Your task to perform on an android device: What is the recent news? Image 0: 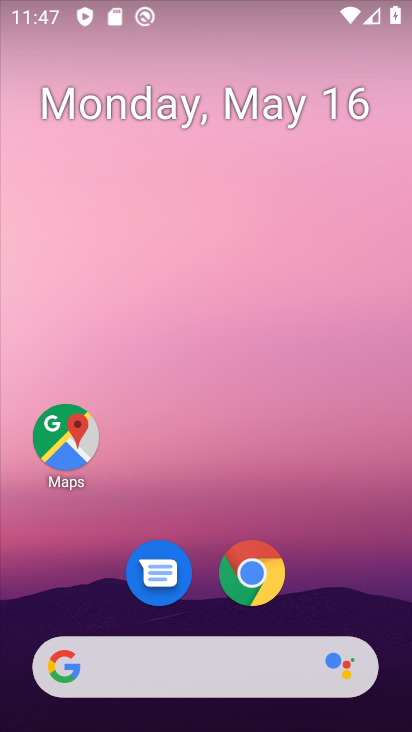
Step 0: drag from (14, 302) to (351, 357)
Your task to perform on an android device: What is the recent news? Image 1: 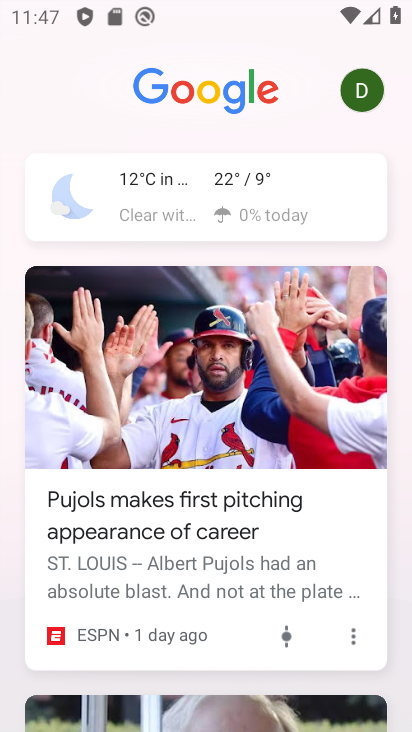
Step 1: task complete